Your task to perform on an android device: What's the weather going to be tomorrow? Image 0: 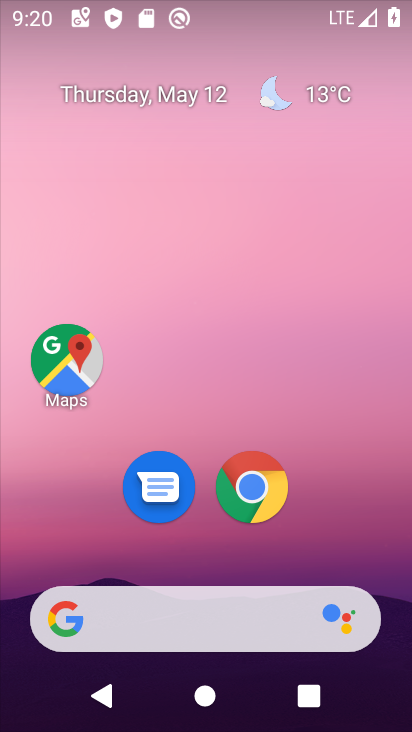
Step 0: click (330, 94)
Your task to perform on an android device: What's the weather going to be tomorrow? Image 1: 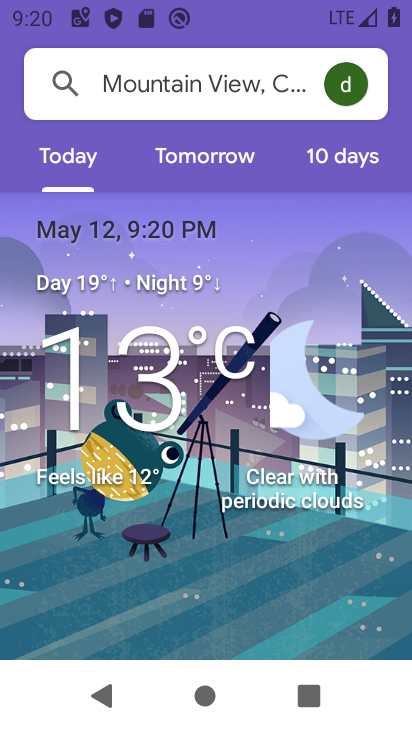
Step 1: click (173, 152)
Your task to perform on an android device: What's the weather going to be tomorrow? Image 2: 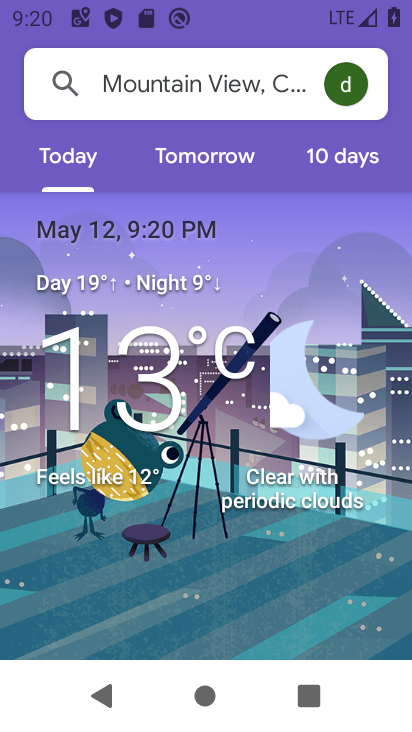
Step 2: click (212, 154)
Your task to perform on an android device: What's the weather going to be tomorrow? Image 3: 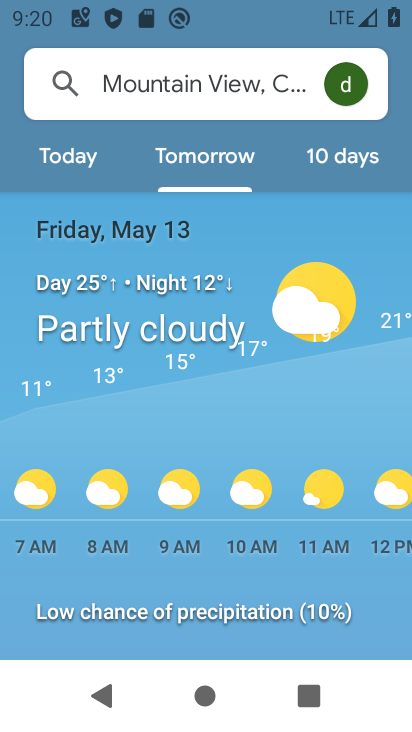
Step 3: task complete